Your task to perform on an android device: change timer sound Image 0: 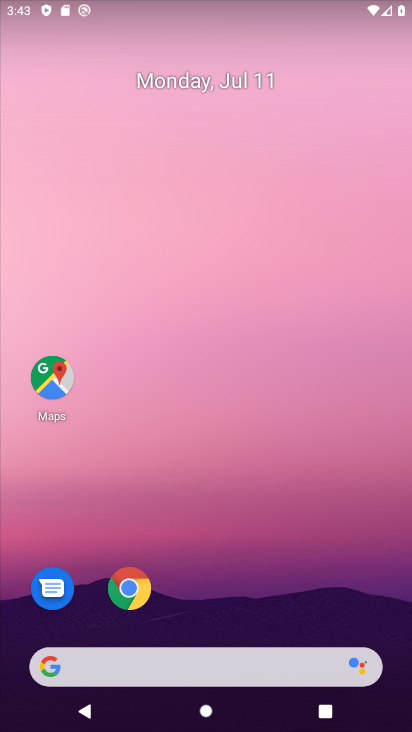
Step 0: drag from (348, 624) to (407, 170)
Your task to perform on an android device: change timer sound Image 1: 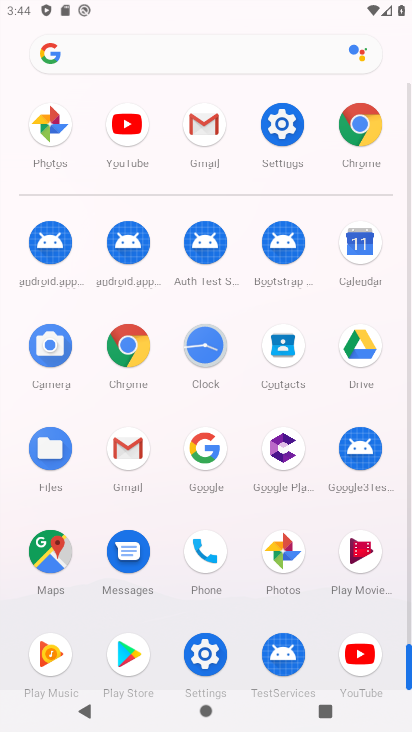
Step 1: click (217, 343)
Your task to perform on an android device: change timer sound Image 2: 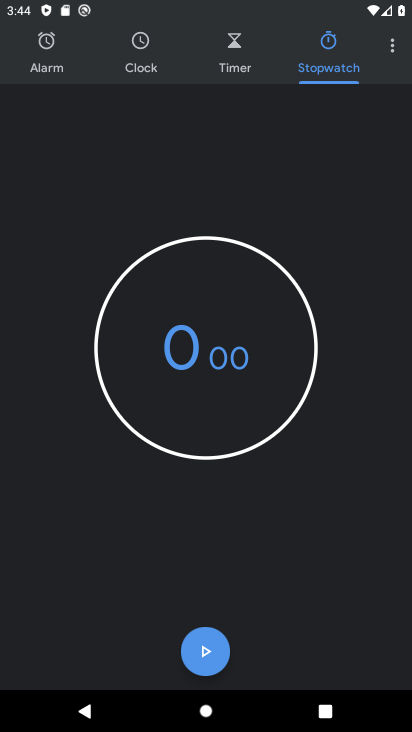
Step 2: click (392, 56)
Your task to perform on an android device: change timer sound Image 3: 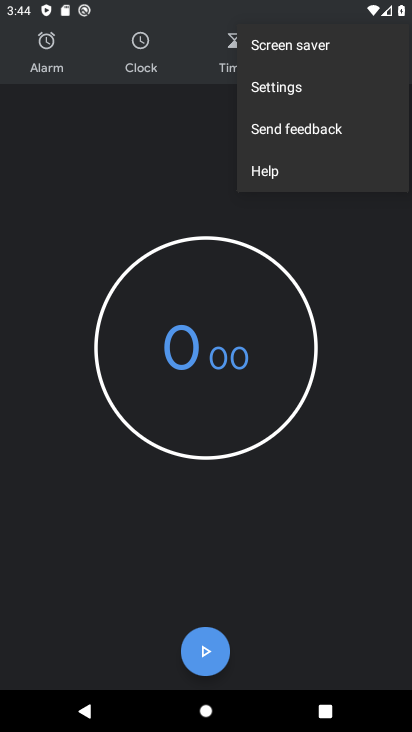
Step 3: click (308, 91)
Your task to perform on an android device: change timer sound Image 4: 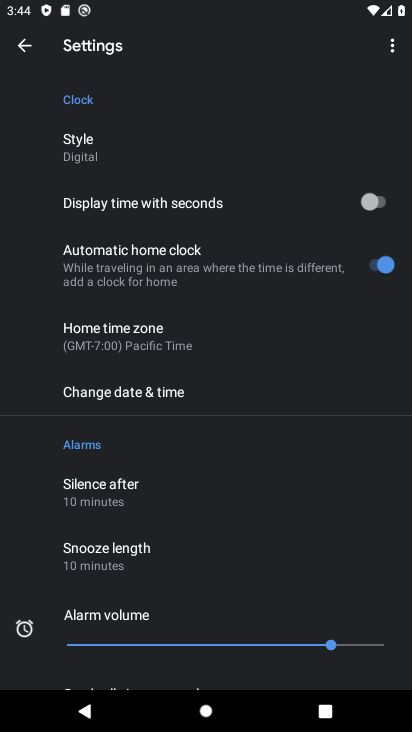
Step 4: drag from (256, 546) to (260, 483)
Your task to perform on an android device: change timer sound Image 5: 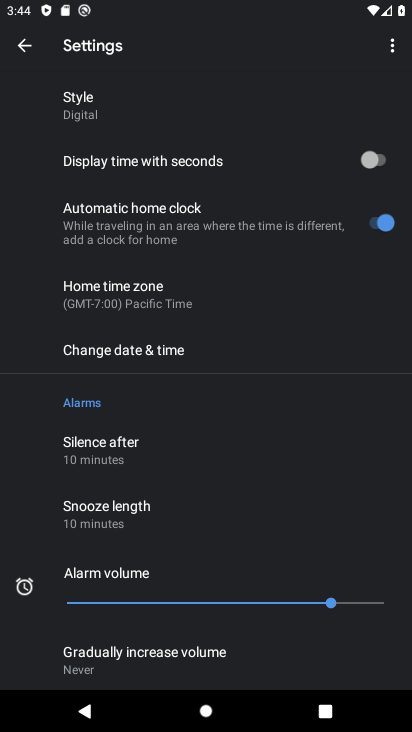
Step 5: drag from (271, 530) to (287, 435)
Your task to perform on an android device: change timer sound Image 6: 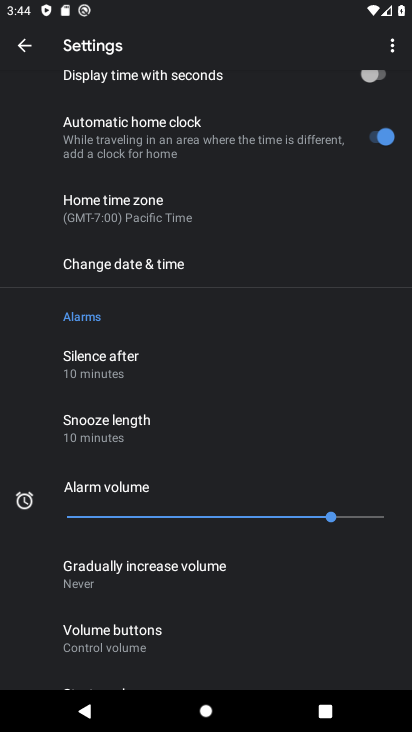
Step 6: drag from (275, 551) to (291, 454)
Your task to perform on an android device: change timer sound Image 7: 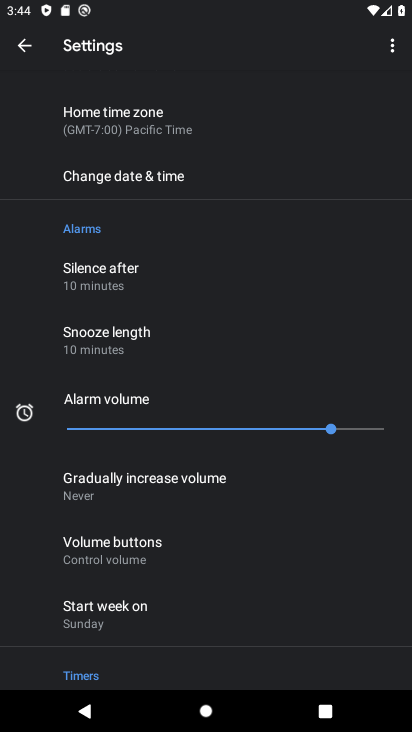
Step 7: drag from (307, 548) to (314, 443)
Your task to perform on an android device: change timer sound Image 8: 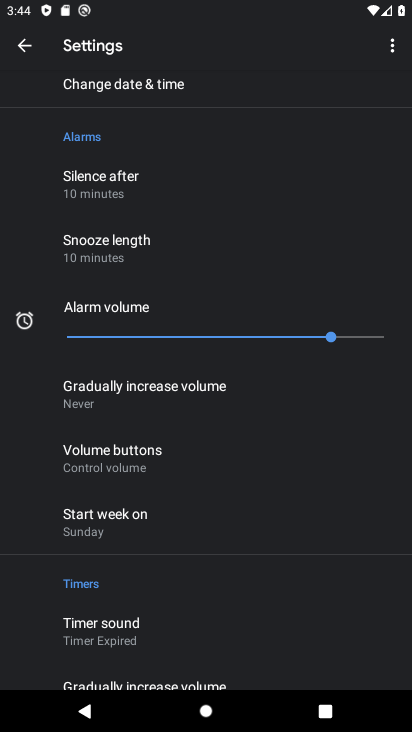
Step 8: drag from (297, 556) to (306, 441)
Your task to perform on an android device: change timer sound Image 9: 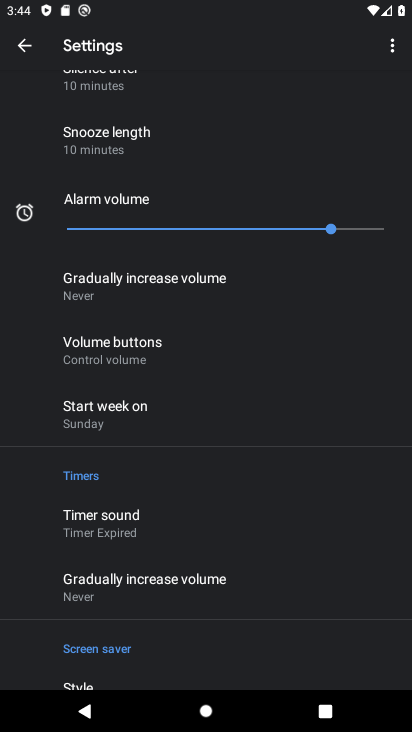
Step 9: drag from (295, 569) to (303, 428)
Your task to perform on an android device: change timer sound Image 10: 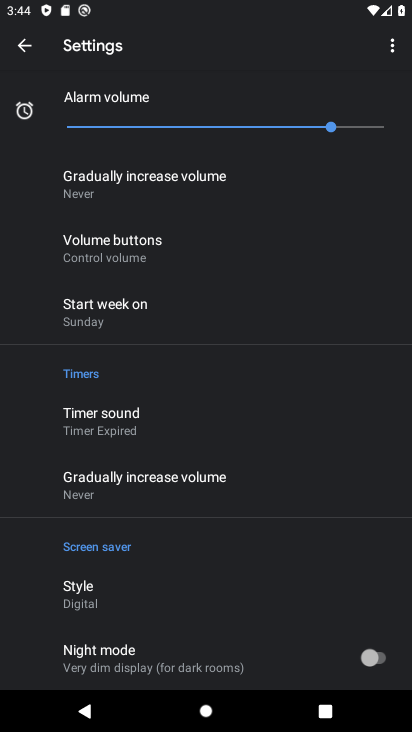
Step 10: drag from (286, 569) to (278, 425)
Your task to perform on an android device: change timer sound Image 11: 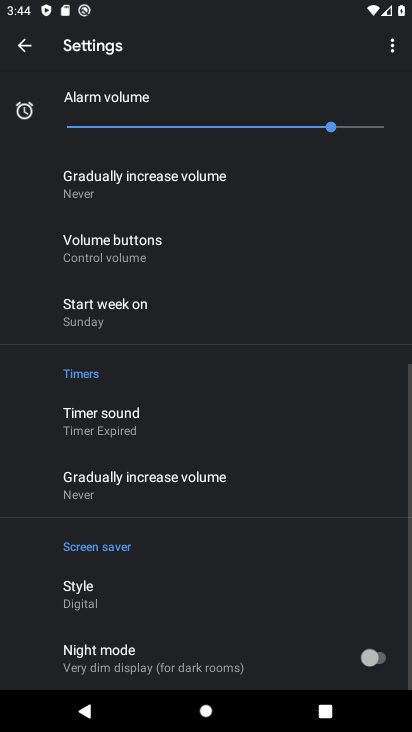
Step 11: click (195, 423)
Your task to perform on an android device: change timer sound Image 12: 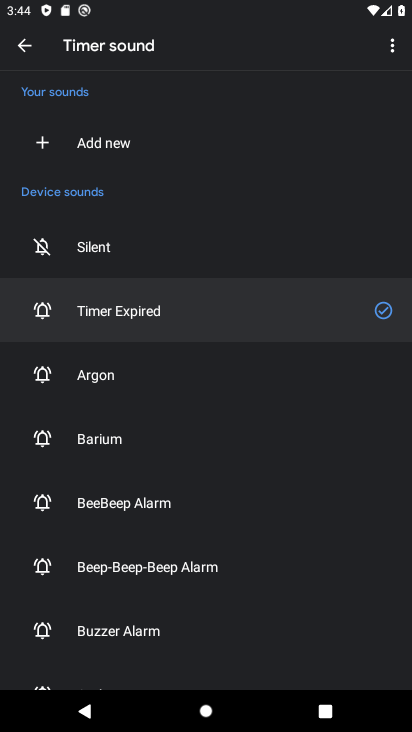
Step 12: click (184, 464)
Your task to perform on an android device: change timer sound Image 13: 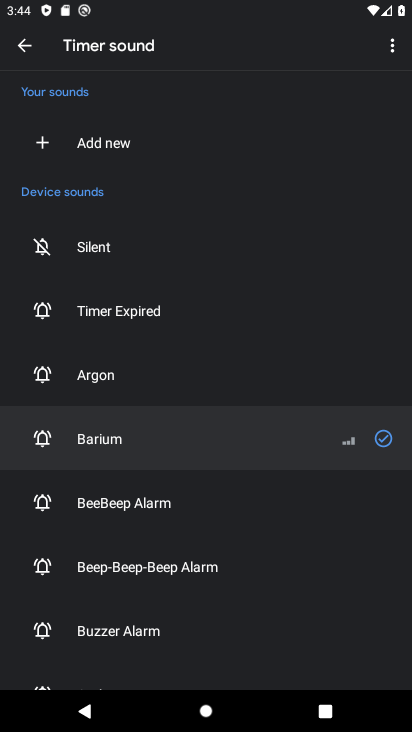
Step 13: task complete